Your task to perform on an android device: open app "Spotify" Image 0: 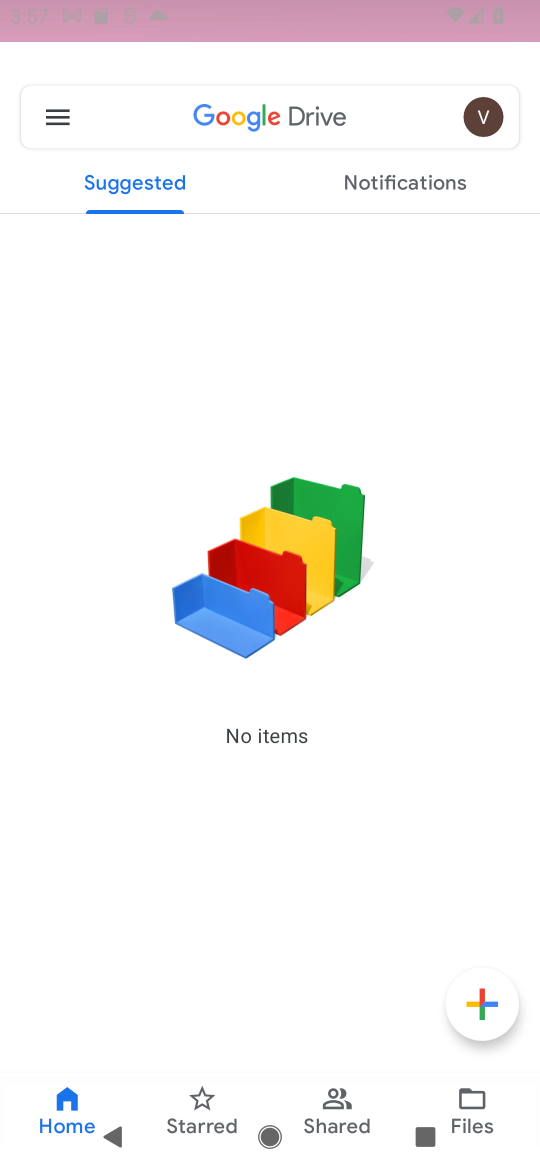
Step 0: press home button
Your task to perform on an android device: open app "Spotify" Image 1: 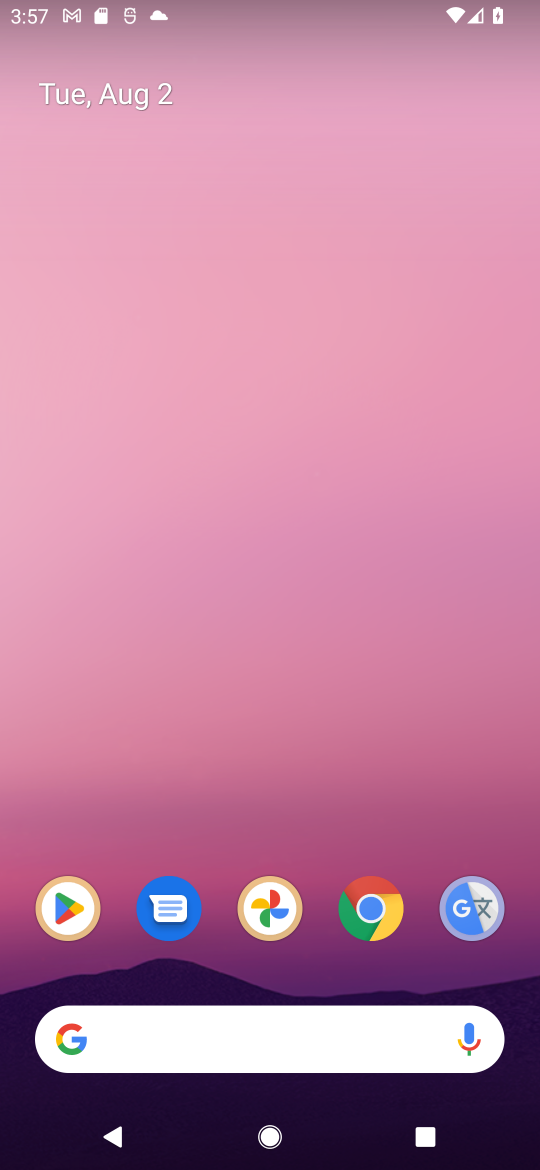
Step 1: click (60, 896)
Your task to perform on an android device: open app "Spotify" Image 2: 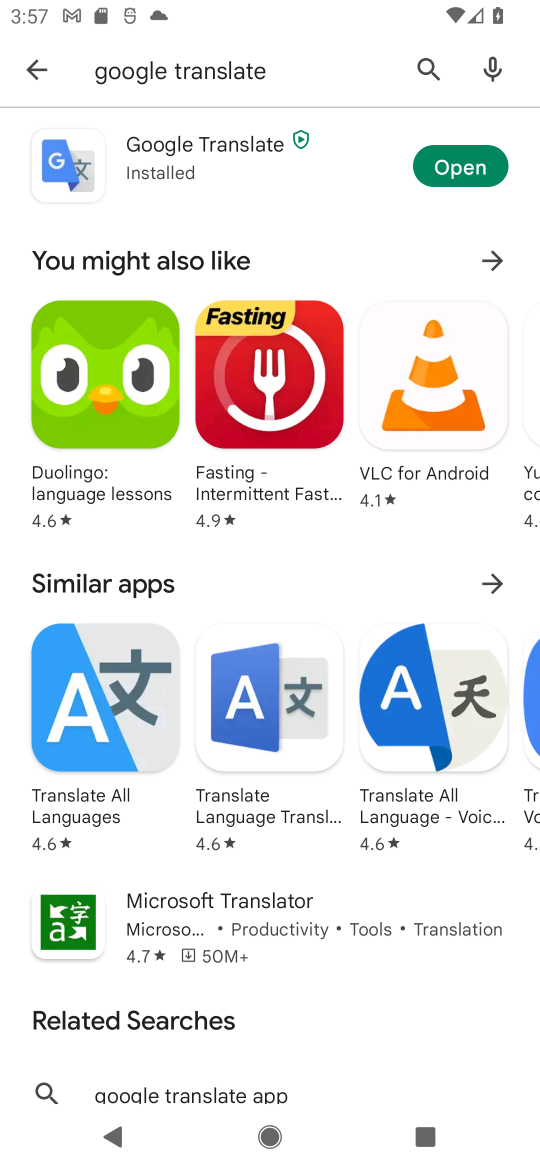
Step 2: click (420, 64)
Your task to perform on an android device: open app "Spotify" Image 3: 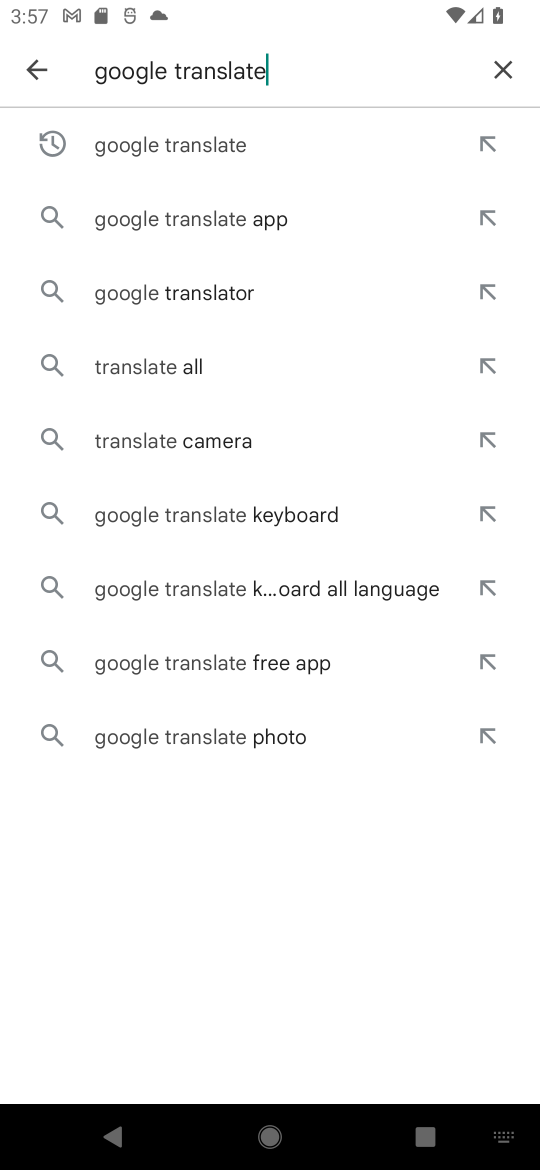
Step 3: click (502, 73)
Your task to perform on an android device: open app "Spotify" Image 4: 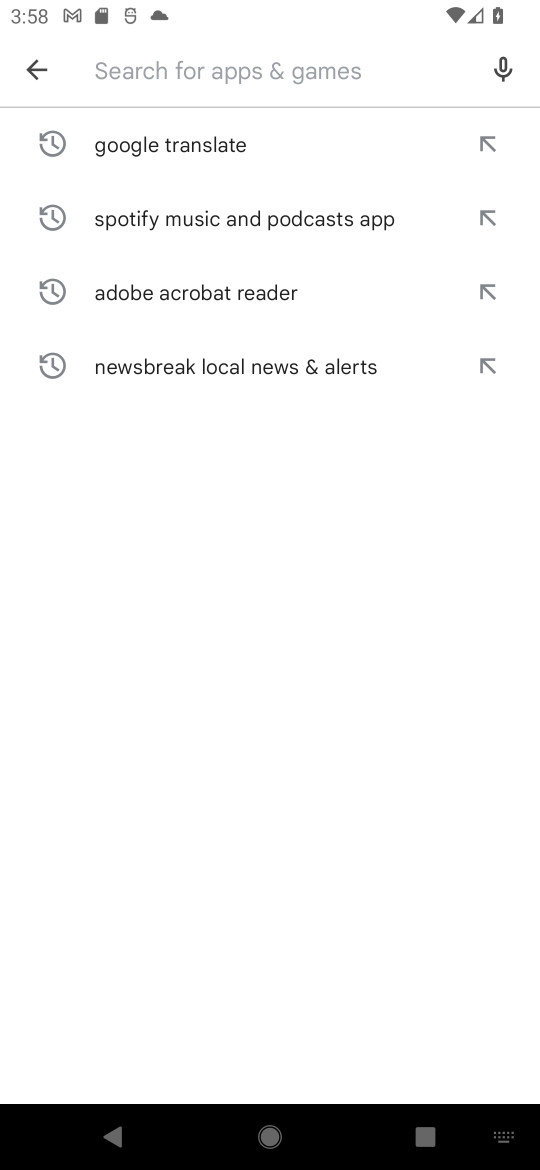
Step 4: type "Spotify"
Your task to perform on an android device: open app "Spotify" Image 5: 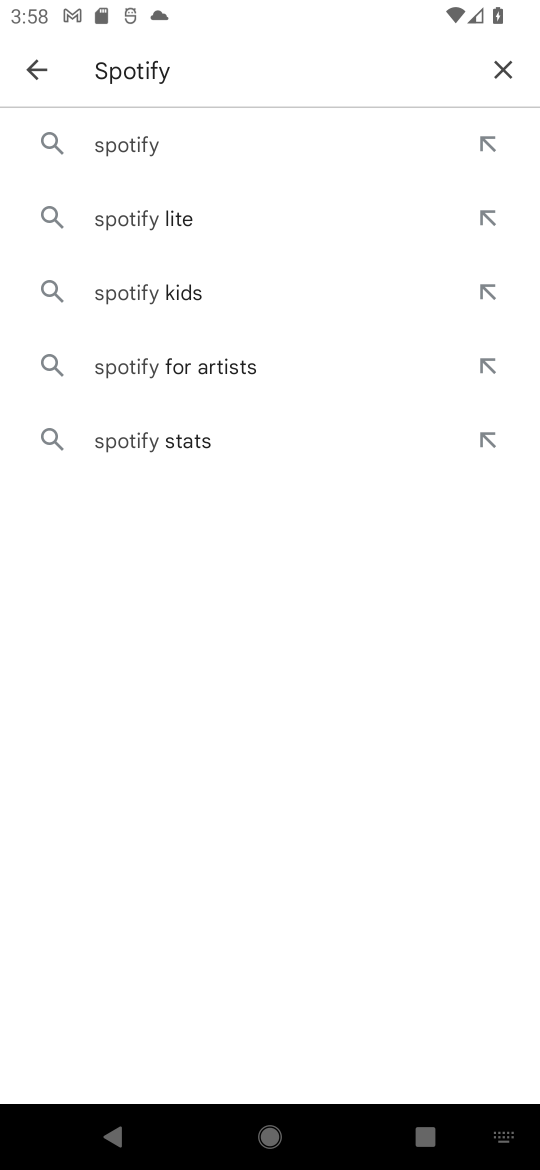
Step 5: click (289, 148)
Your task to perform on an android device: open app "Spotify" Image 6: 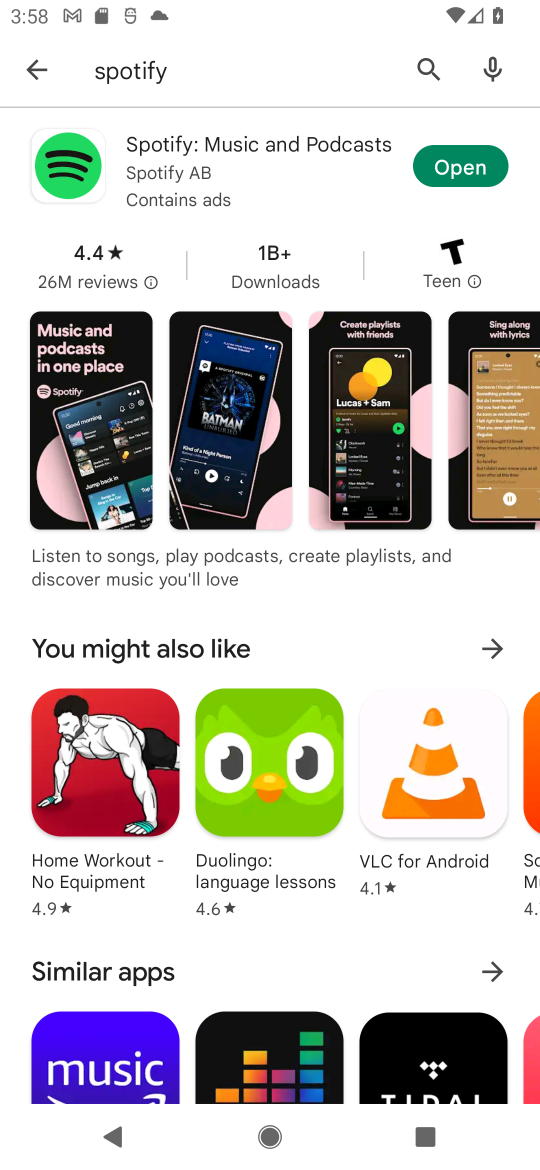
Step 6: click (467, 165)
Your task to perform on an android device: open app "Spotify" Image 7: 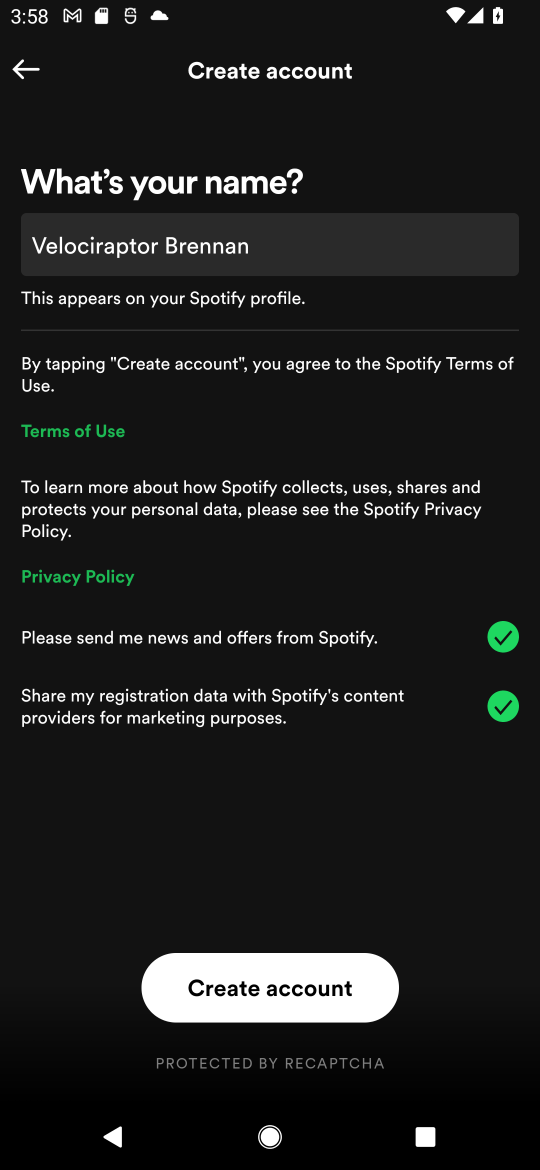
Step 7: task complete